Your task to perform on an android device: turn off smart reply in the gmail app Image 0: 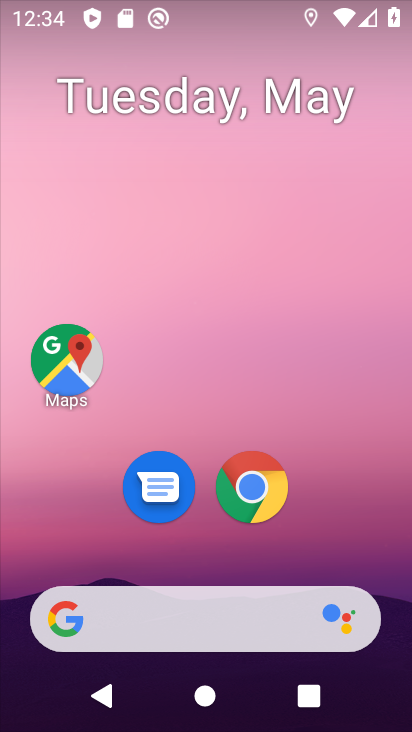
Step 0: drag from (234, 493) to (204, 153)
Your task to perform on an android device: turn off smart reply in the gmail app Image 1: 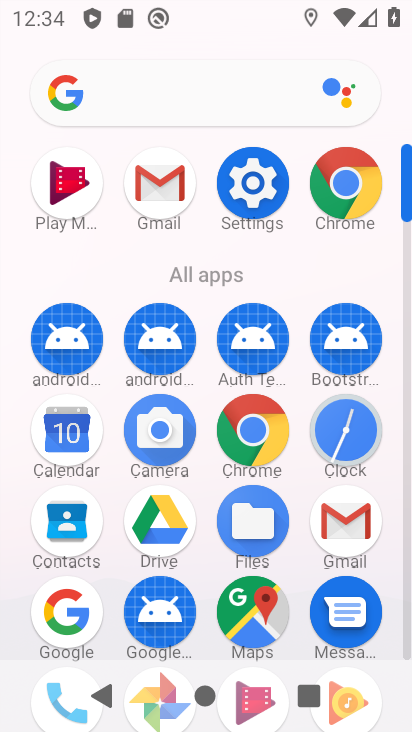
Step 1: click (164, 191)
Your task to perform on an android device: turn off smart reply in the gmail app Image 2: 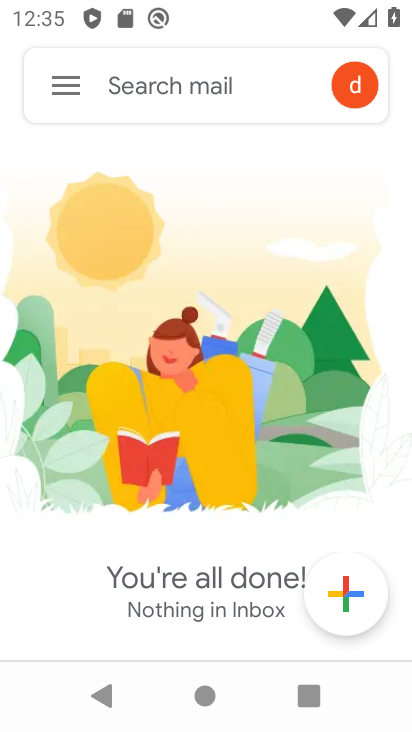
Step 2: click (69, 81)
Your task to perform on an android device: turn off smart reply in the gmail app Image 3: 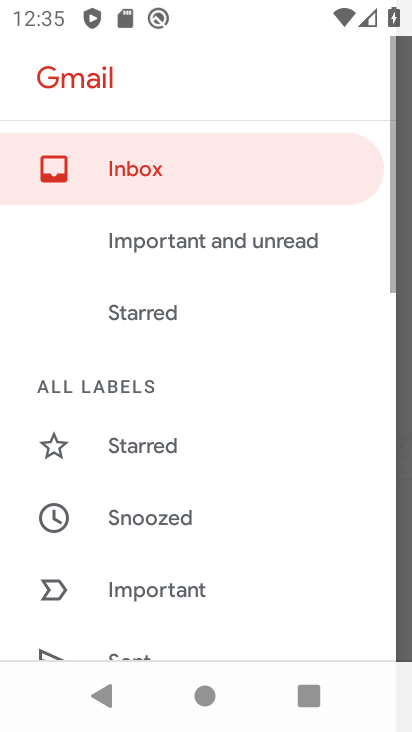
Step 3: drag from (256, 558) to (240, 143)
Your task to perform on an android device: turn off smart reply in the gmail app Image 4: 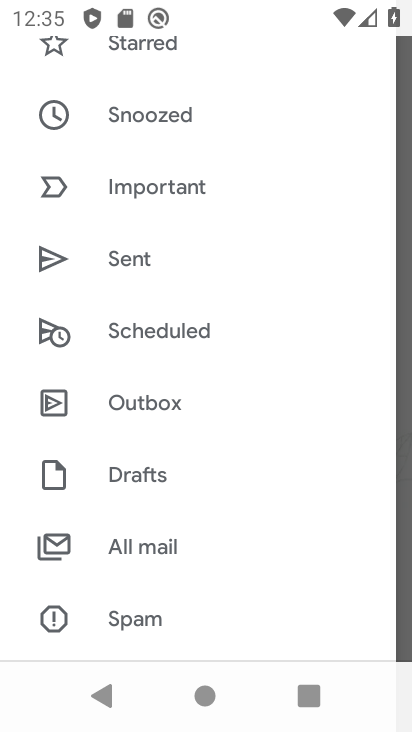
Step 4: drag from (175, 505) to (171, 222)
Your task to perform on an android device: turn off smart reply in the gmail app Image 5: 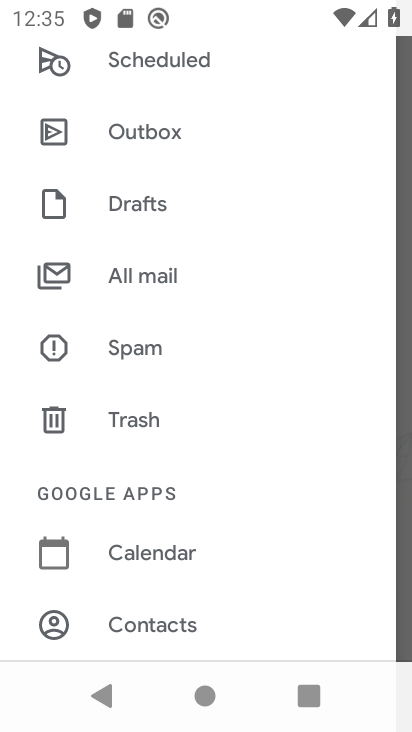
Step 5: drag from (174, 599) to (131, 245)
Your task to perform on an android device: turn off smart reply in the gmail app Image 6: 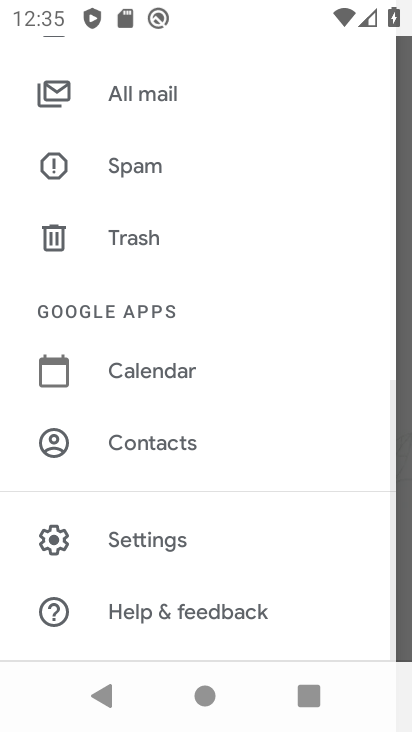
Step 6: click (148, 543)
Your task to perform on an android device: turn off smart reply in the gmail app Image 7: 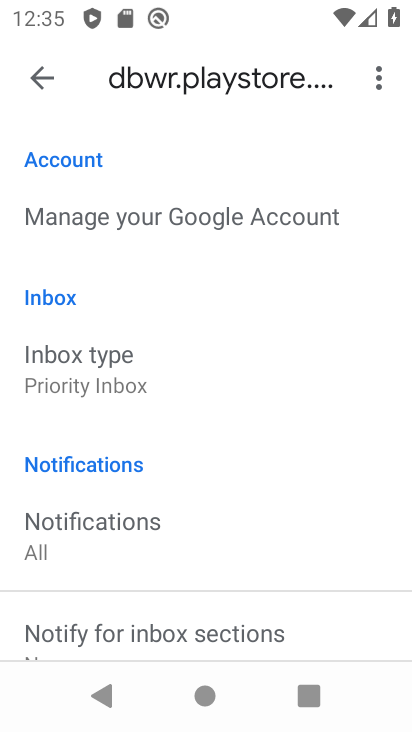
Step 7: drag from (225, 550) to (227, 219)
Your task to perform on an android device: turn off smart reply in the gmail app Image 8: 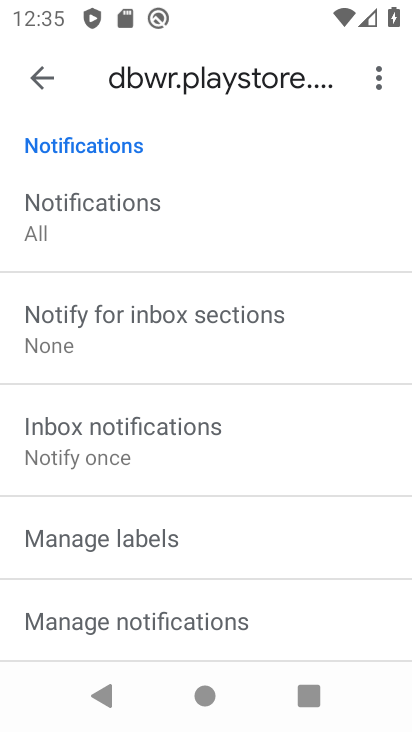
Step 8: drag from (246, 556) to (264, 238)
Your task to perform on an android device: turn off smart reply in the gmail app Image 9: 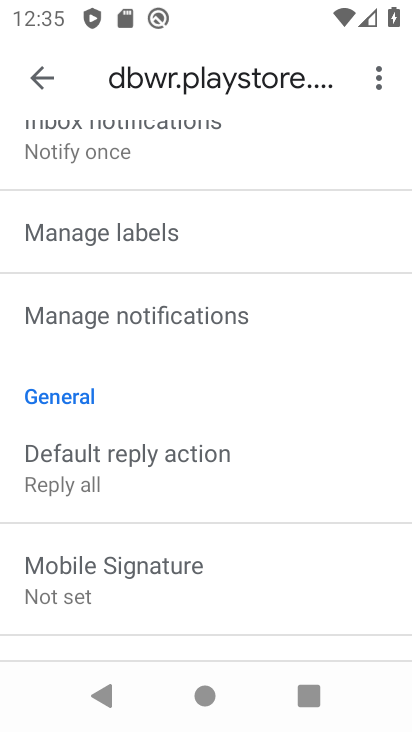
Step 9: drag from (242, 593) to (224, 306)
Your task to perform on an android device: turn off smart reply in the gmail app Image 10: 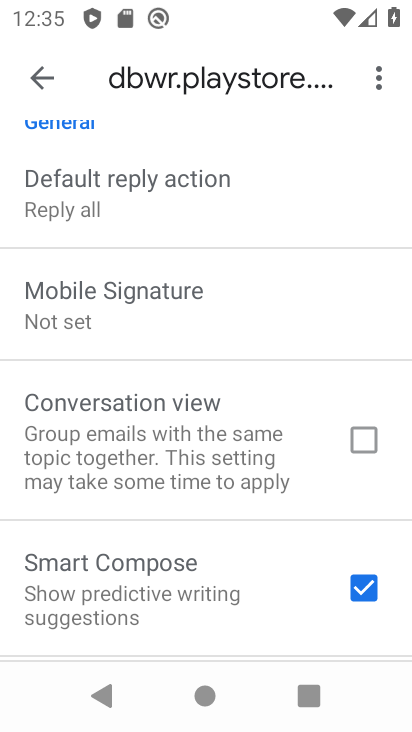
Step 10: drag from (225, 567) to (227, 284)
Your task to perform on an android device: turn off smart reply in the gmail app Image 11: 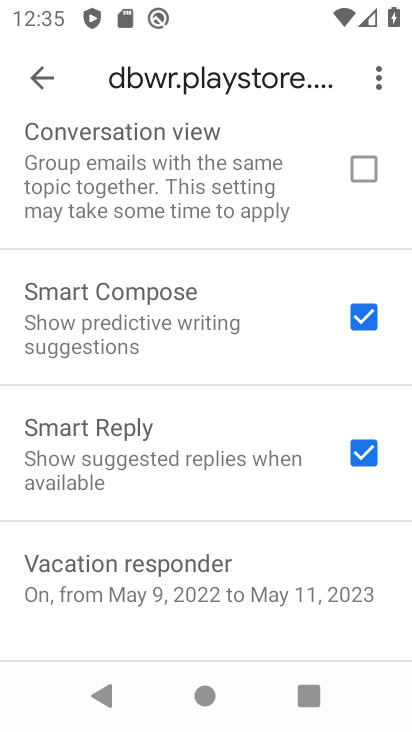
Step 11: click (362, 444)
Your task to perform on an android device: turn off smart reply in the gmail app Image 12: 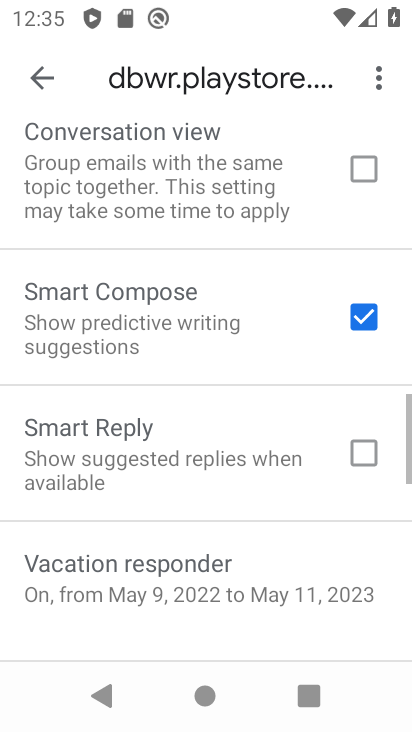
Step 12: task complete